Your task to perform on an android device: change notifications settings Image 0: 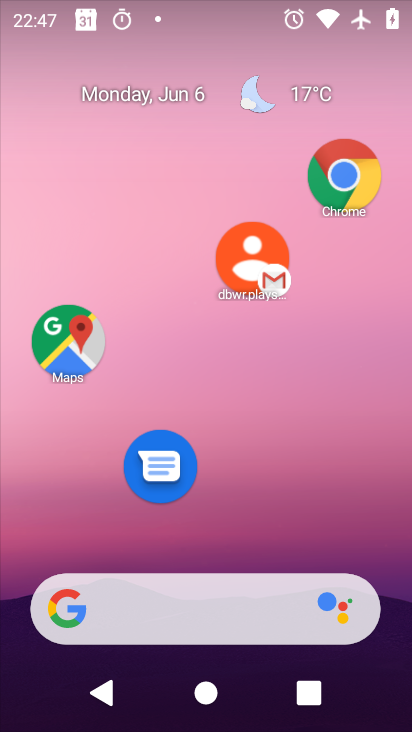
Step 0: drag from (213, 552) to (159, 119)
Your task to perform on an android device: change notifications settings Image 1: 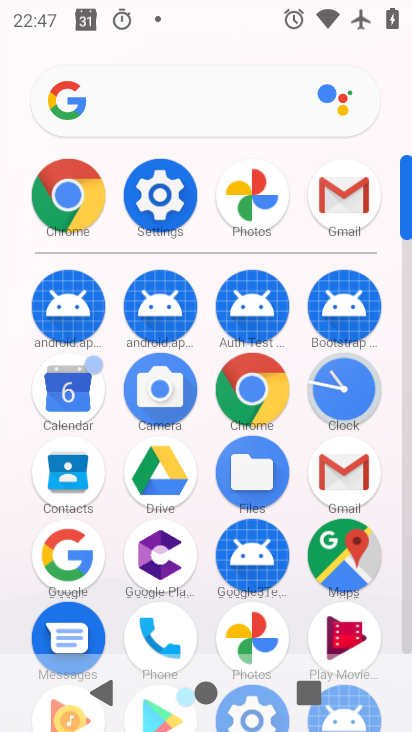
Step 1: click (173, 192)
Your task to perform on an android device: change notifications settings Image 2: 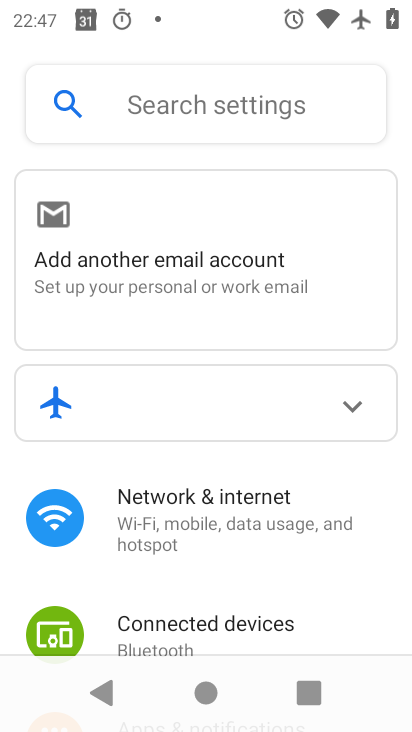
Step 2: drag from (195, 610) to (248, 4)
Your task to perform on an android device: change notifications settings Image 3: 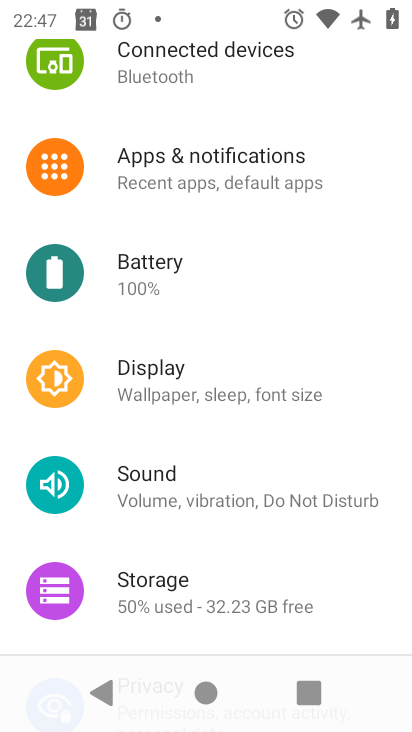
Step 3: click (183, 185)
Your task to perform on an android device: change notifications settings Image 4: 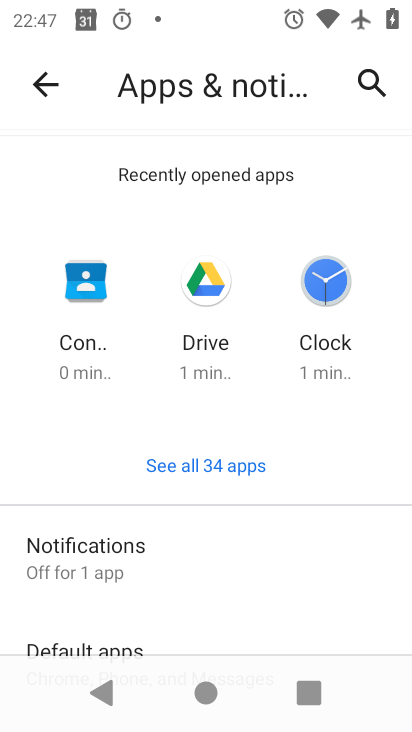
Step 4: click (175, 543)
Your task to perform on an android device: change notifications settings Image 5: 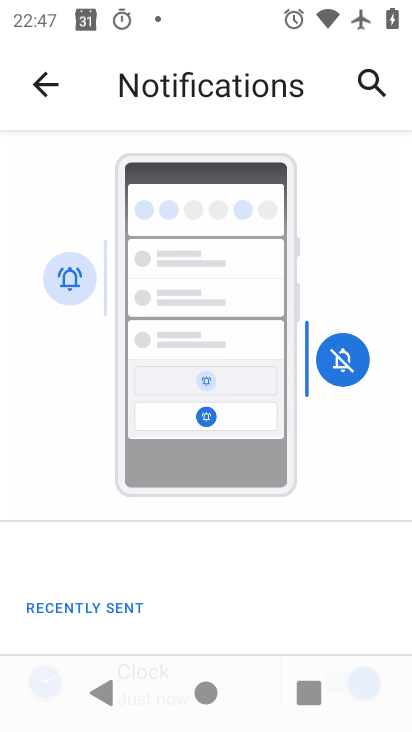
Step 5: click (325, 144)
Your task to perform on an android device: change notifications settings Image 6: 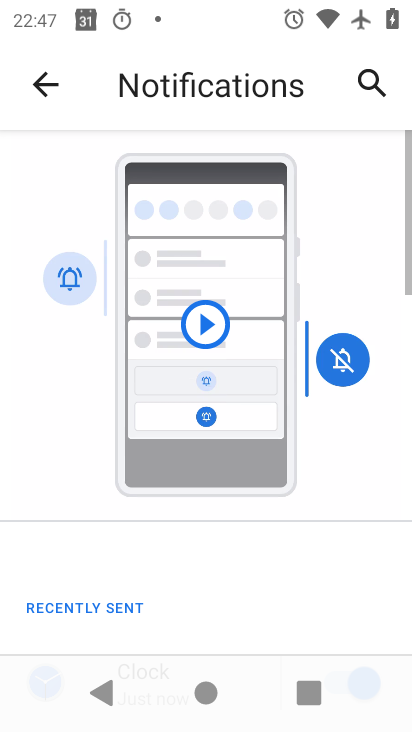
Step 6: drag from (228, 589) to (257, 191)
Your task to perform on an android device: change notifications settings Image 7: 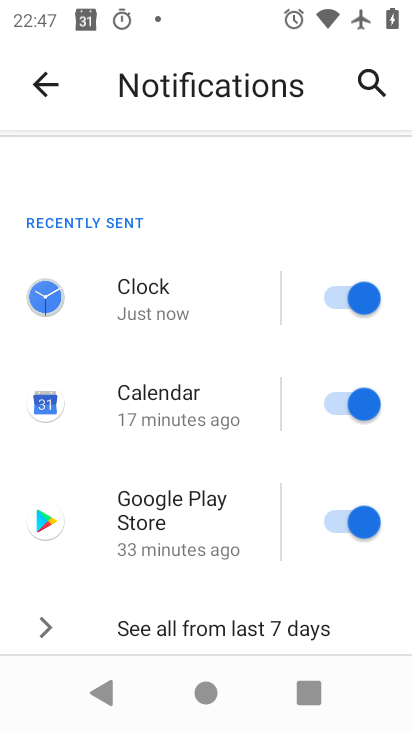
Step 7: click (348, 395)
Your task to perform on an android device: change notifications settings Image 8: 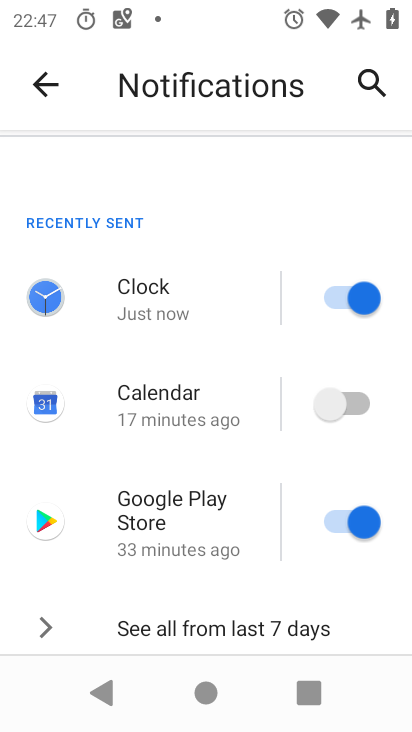
Step 8: task complete